Your task to perform on an android device: Search for pizza restaurants on Maps Image 0: 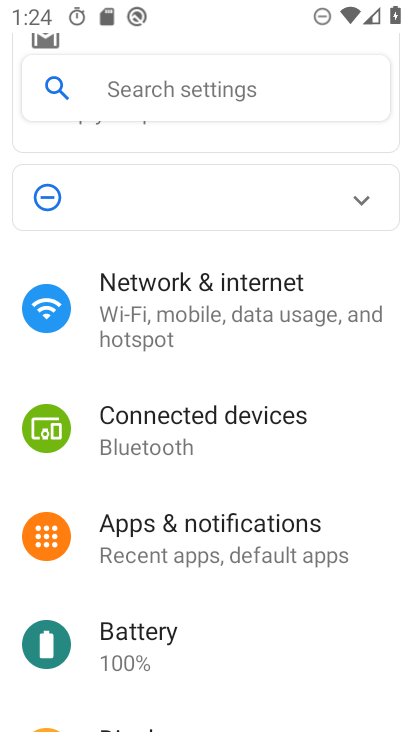
Step 0: press home button
Your task to perform on an android device: Search for pizza restaurants on Maps Image 1: 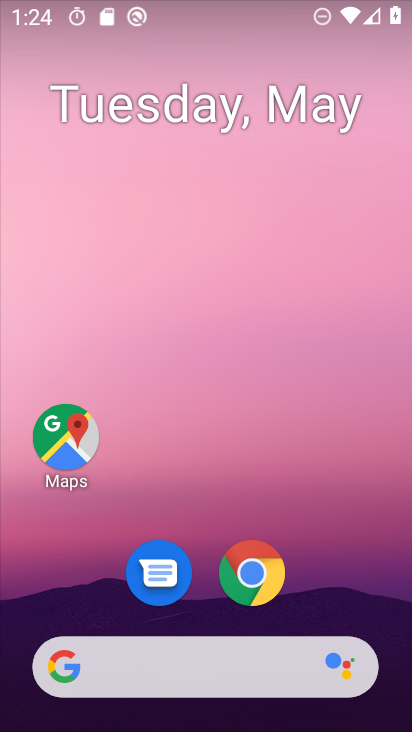
Step 1: drag from (339, 581) to (399, 84)
Your task to perform on an android device: Search for pizza restaurants on Maps Image 2: 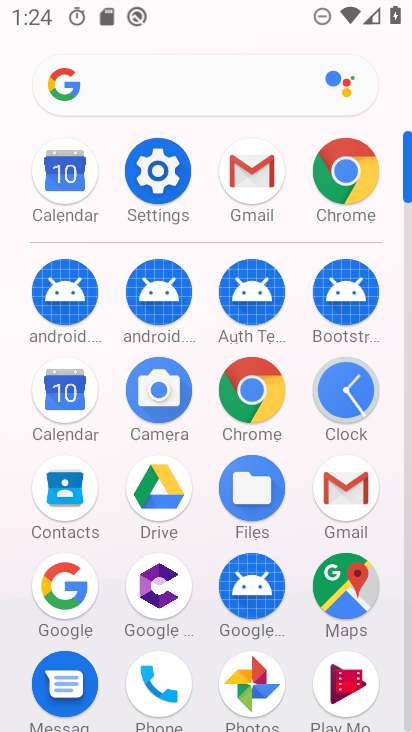
Step 2: click (334, 585)
Your task to perform on an android device: Search for pizza restaurants on Maps Image 3: 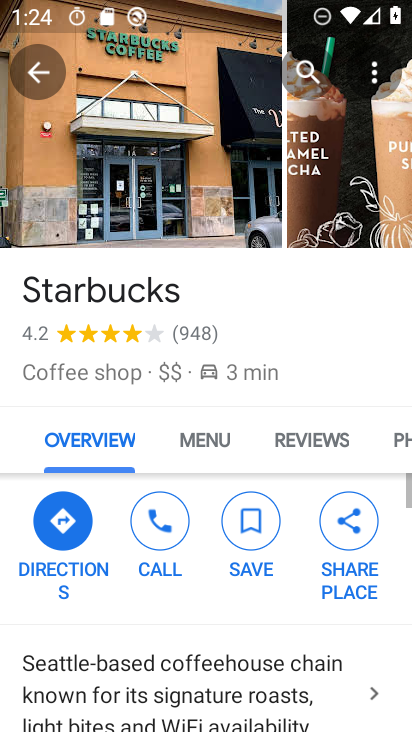
Step 3: click (40, 58)
Your task to perform on an android device: Search for pizza restaurants on Maps Image 4: 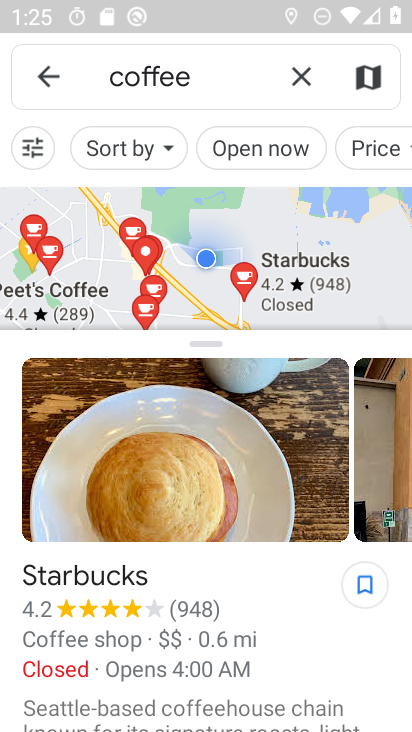
Step 4: click (45, 84)
Your task to perform on an android device: Search for pizza restaurants on Maps Image 5: 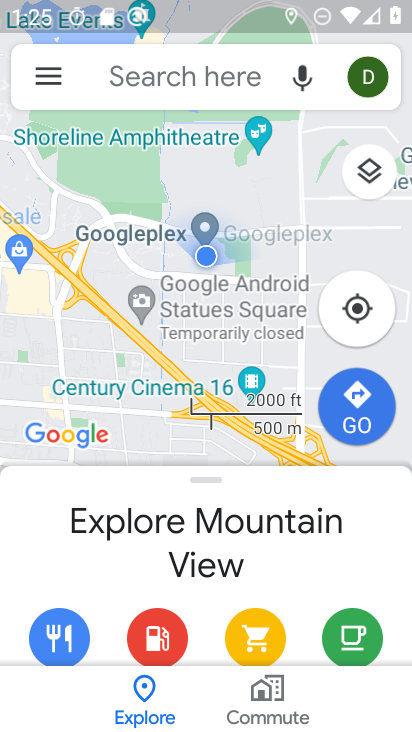
Step 5: click (145, 79)
Your task to perform on an android device: Search for pizza restaurants on Maps Image 6: 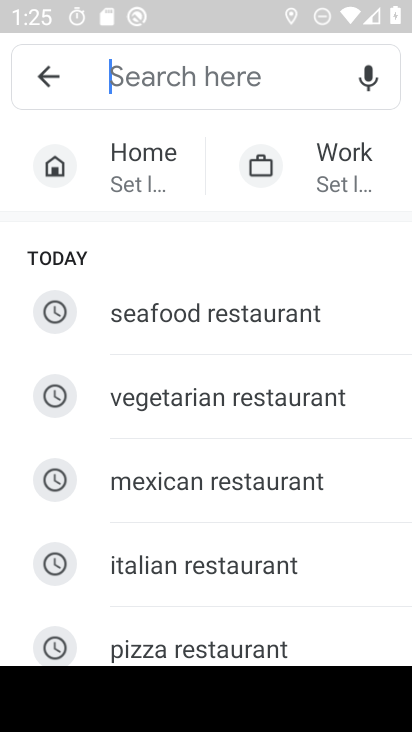
Step 6: drag from (244, 610) to (203, 350)
Your task to perform on an android device: Search for pizza restaurants on Maps Image 7: 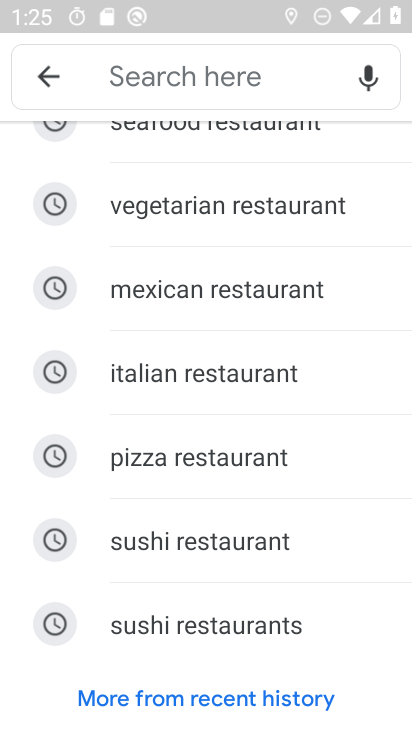
Step 7: click (159, 462)
Your task to perform on an android device: Search for pizza restaurants on Maps Image 8: 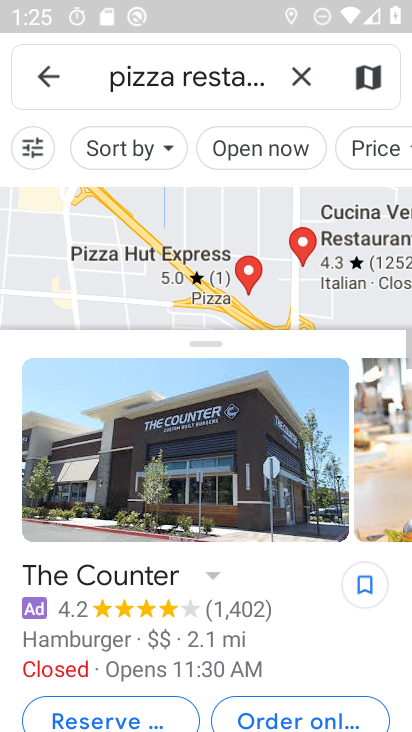
Step 8: task complete